Your task to perform on an android device: Open eBay Image 0: 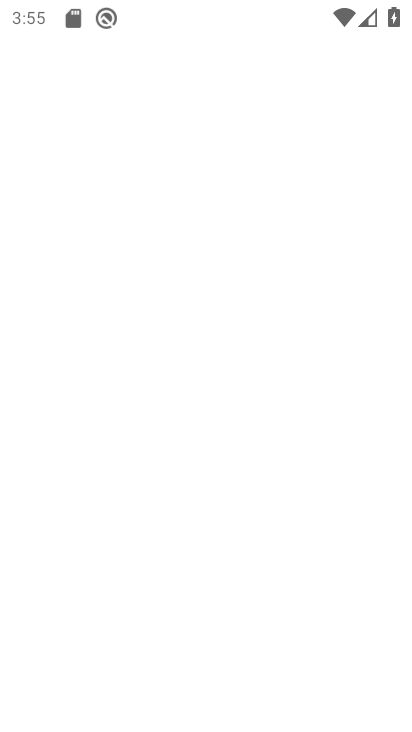
Step 0: drag from (244, 658) to (201, 117)
Your task to perform on an android device: Open eBay Image 1: 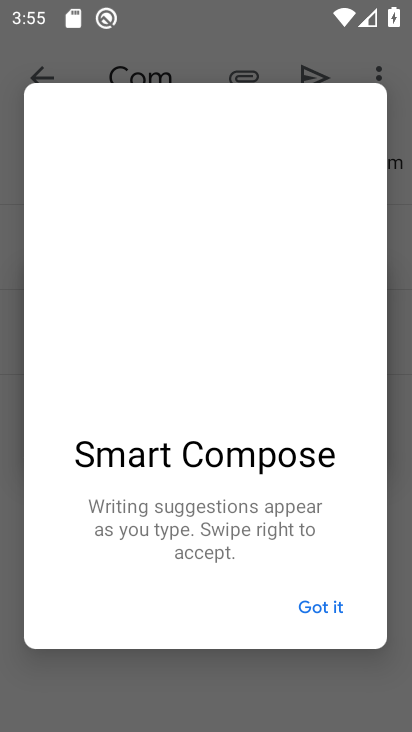
Step 1: click (318, 608)
Your task to perform on an android device: Open eBay Image 2: 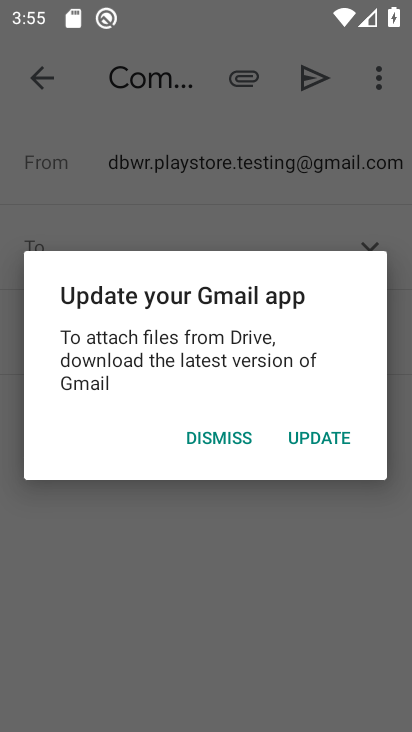
Step 2: click (231, 438)
Your task to perform on an android device: Open eBay Image 3: 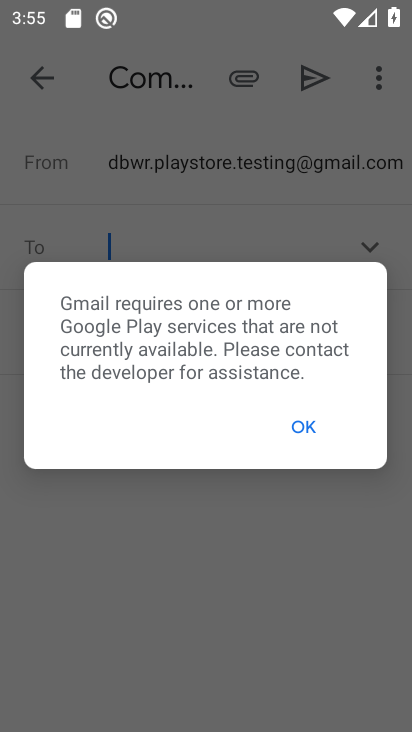
Step 3: click (302, 417)
Your task to perform on an android device: Open eBay Image 4: 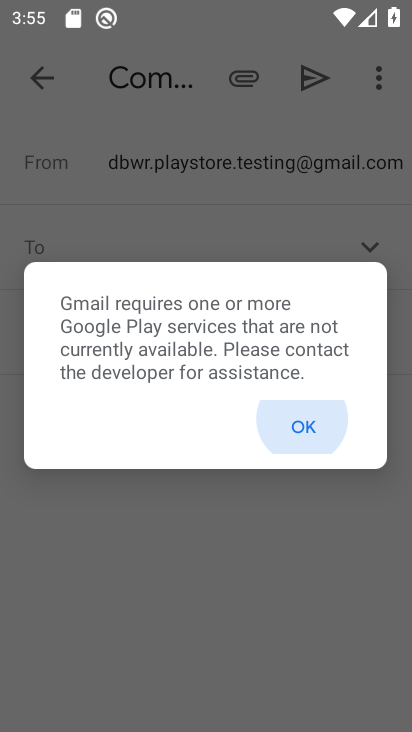
Step 4: click (302, 417)
Your task to perform on an android device: Open eBay Image 5: 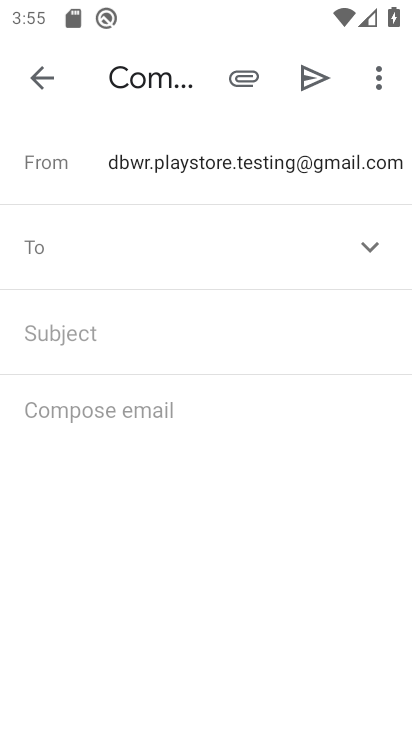
Step 5: click (309, 419)
Your task to perform on an android device: Open eBay Image 6: 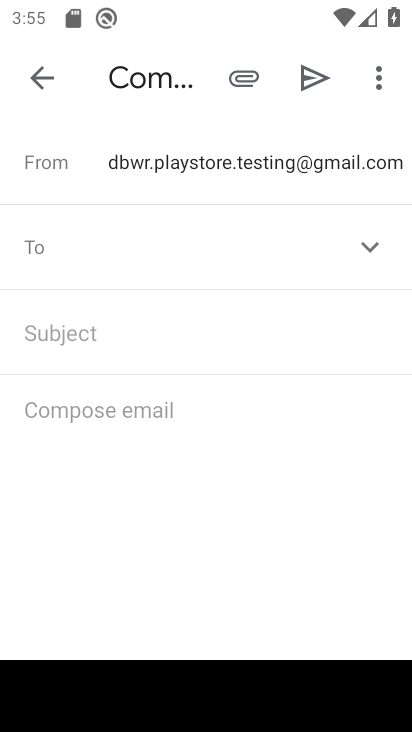
Step 6: click (44, 83)
Your task to perform on an android device: Open eBay Image 7: 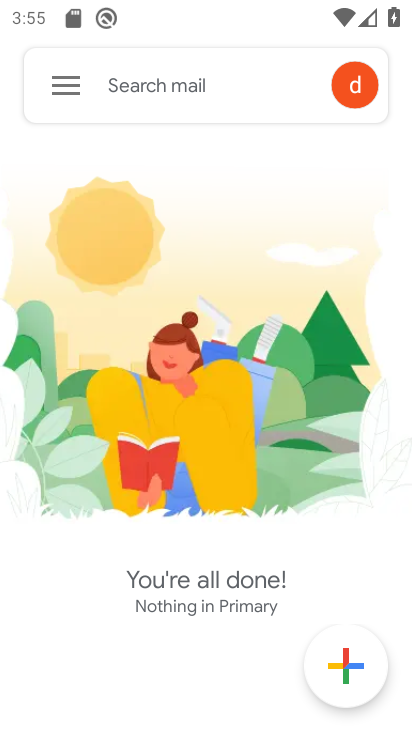
Step 7: press back button
Your task to perform on an android device: Open eBay Image 8: 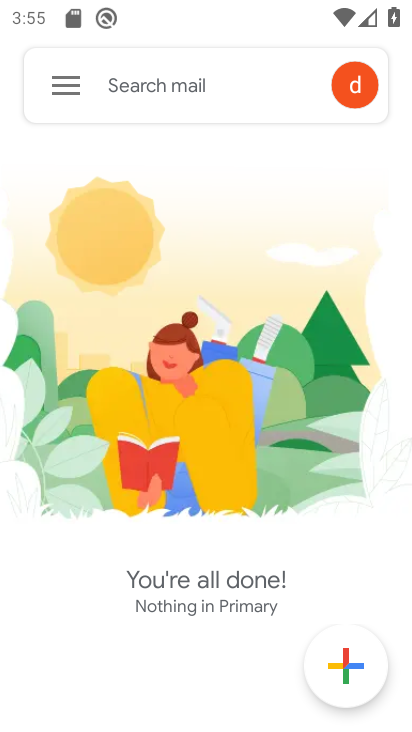
Step 8: press back button
Your task to perform on an android device: Open eBay Image 9: 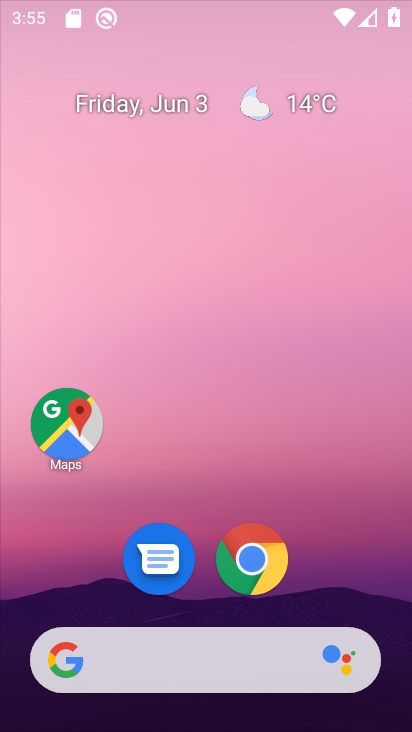
Step 9: press back button
Your task to perform on an android device: Open eBay Image 10: 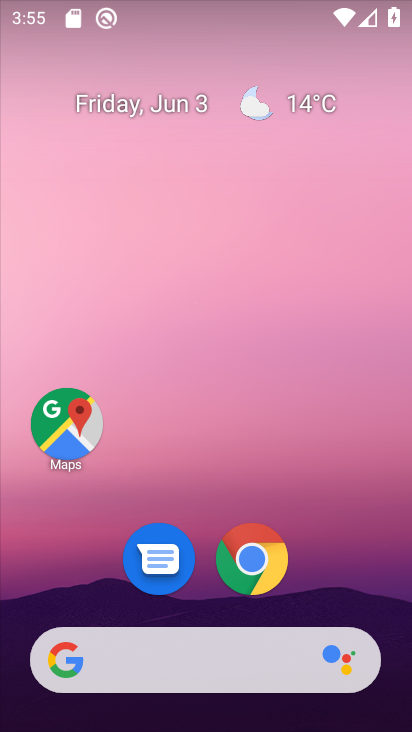
Step 10: drag from (214, 652) to (190, 5)
Your task to perform on an android device: Open eBay Image 11: 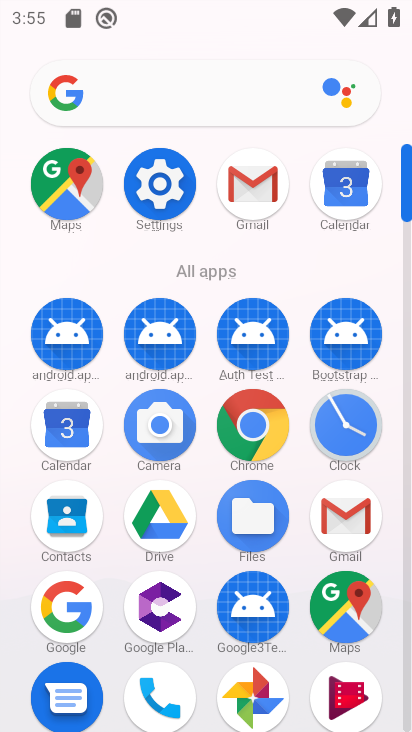
Step 11: click (252, 424)
Your task to perform on an android device: Open eBay Image 12: 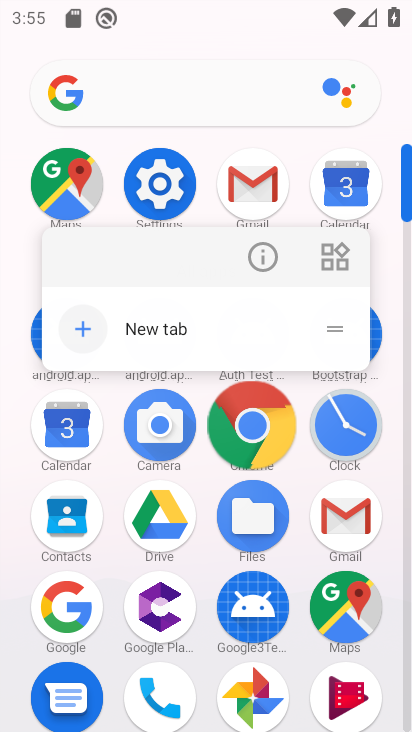
Step 12: click (252, 423)
Your task to perform on an android device: Open eBay Image 13: 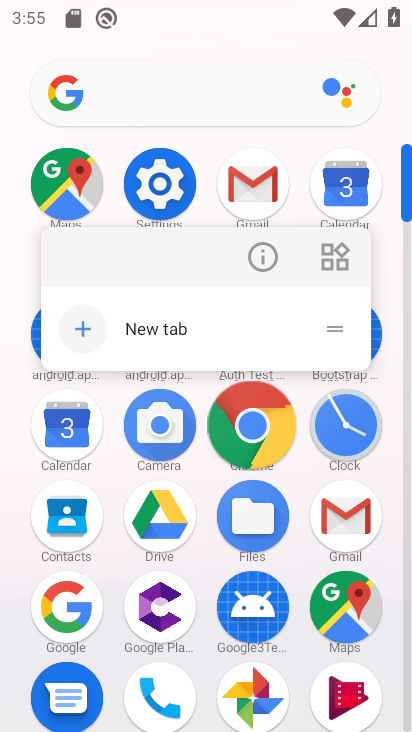
Step 13: click (253, 422)
Your task to perform on an android device: Open eBay Image 14: 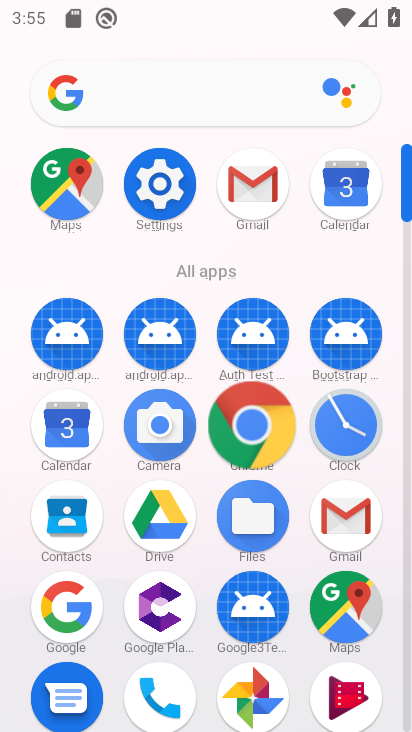
Step 14: click (261, 415)
Your task to perform on an android device: Open eBay Image 15: 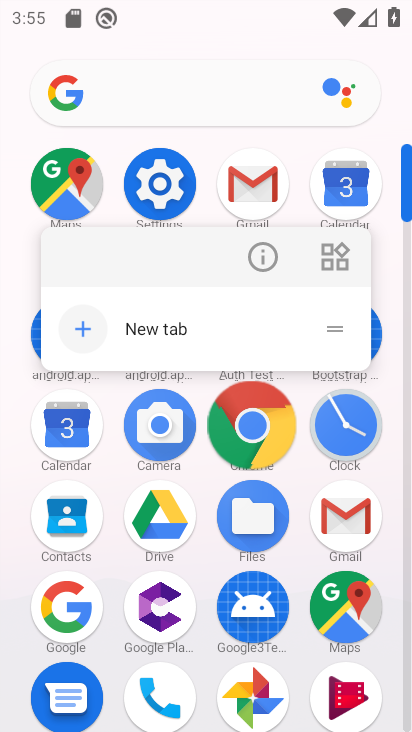
Step 15: click (262, 413)
Your task to perform on an android device: Open eBay Image 16: 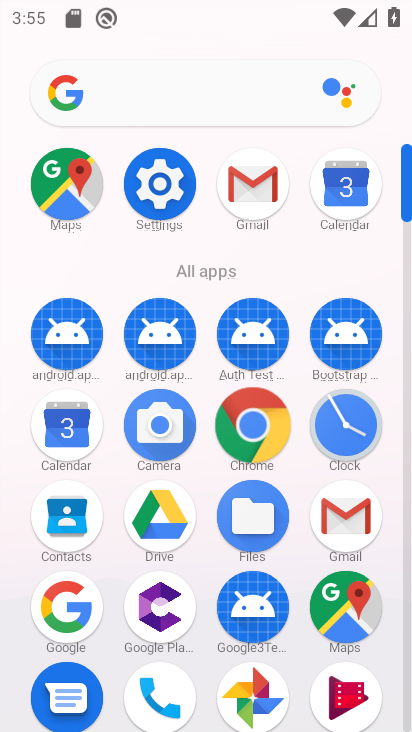
Step 16: click (253, 413)
Your task to perform on an android device: Open eBay Image 17: 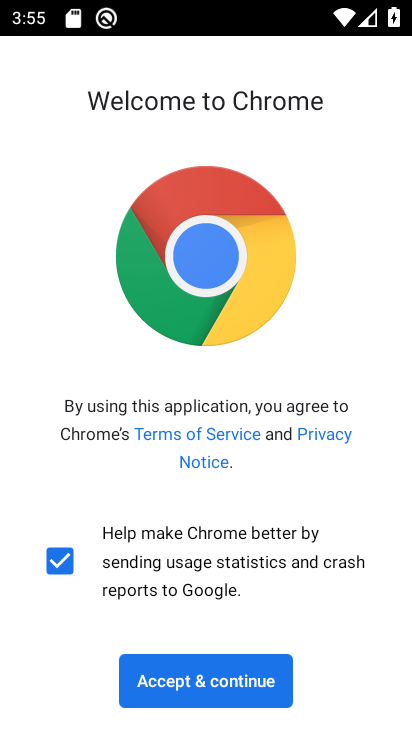
Step 17: click (198, 673)
Your task to perform on an android device: Open eBay Image 18: 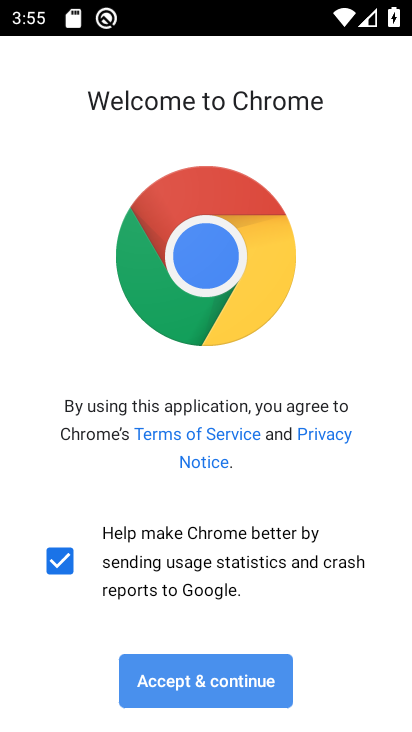
Step 18: click (197, 672)
Your task to perform on an android device: Open eBay Image 19: 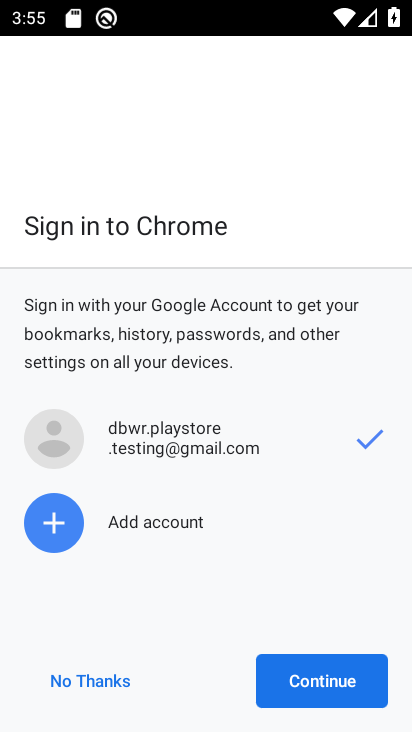
Step 19: click (198, 669)
Your task to perform on an android device: Open eBay Image 20: 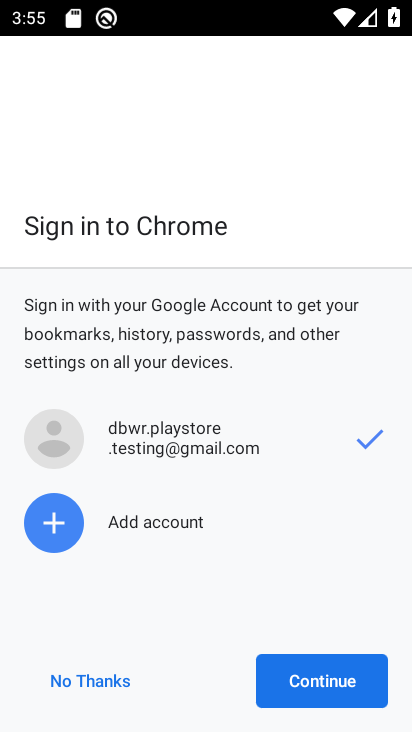
Step 20: click (342, 684)
Your task to perform on an android device: Open eBay Image 21: 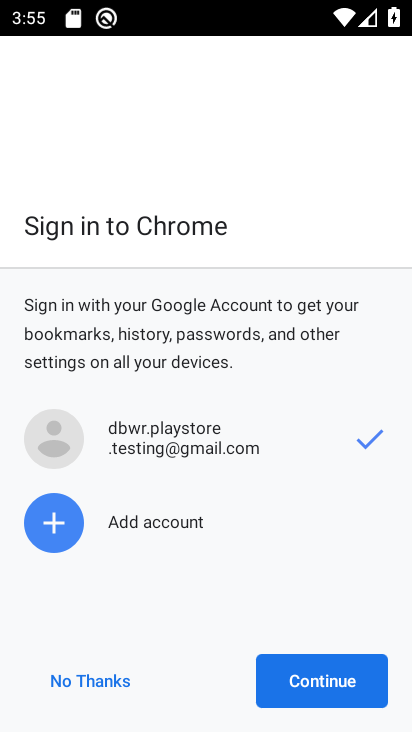
Step 21: click (335, 673)
Your task to perform on an android device: Open eBay Image 22: 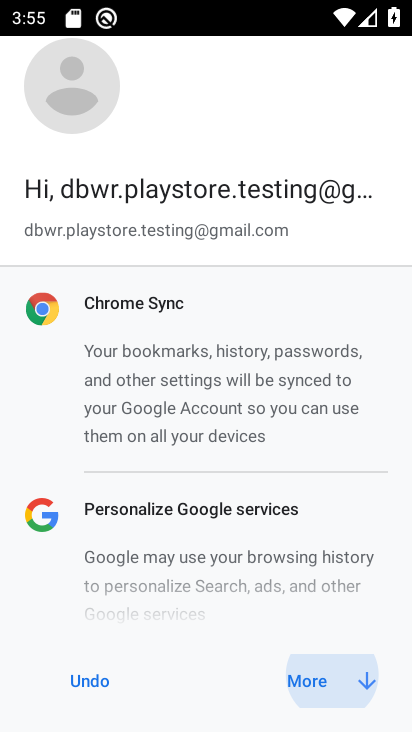
Step 22: click (338, 676)
Your task to perform on an android device: Open eBay Image 23: 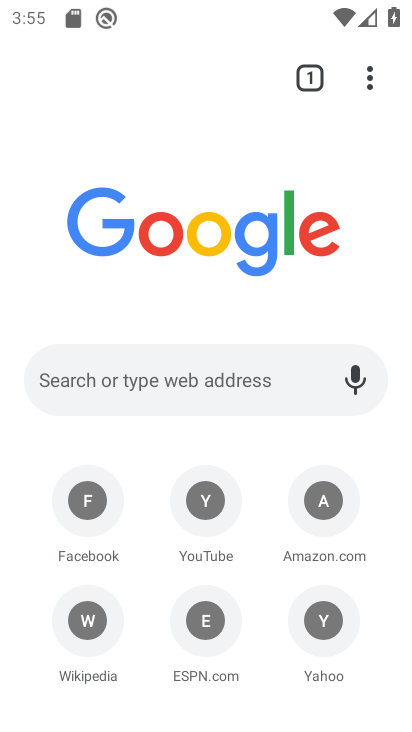
Step 23: click (64, 61)
Your task to perform on an android device: Open eBay Image 24: 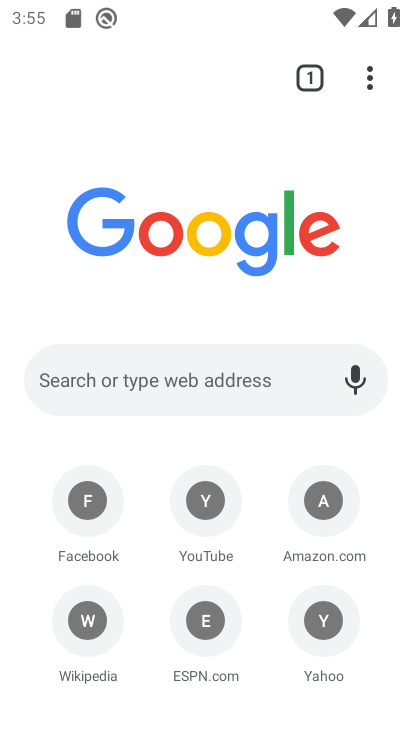
Step 24: click (65, 62)
Your task to perform on an android device: Open eBay Image 25: 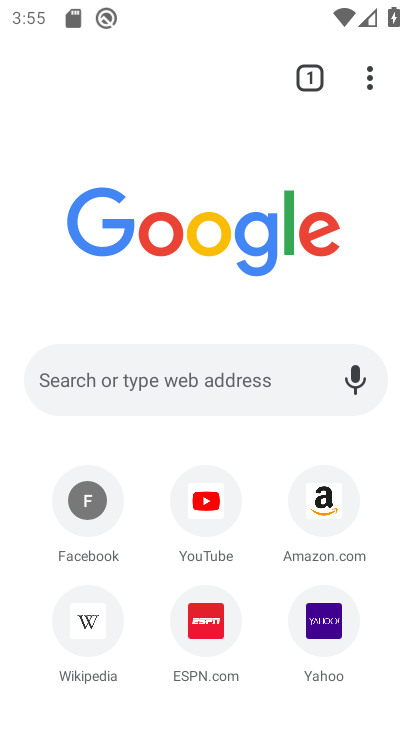
Step 25: click (71, 377)
Your task to perform on an android device: Open eBay Image 26: 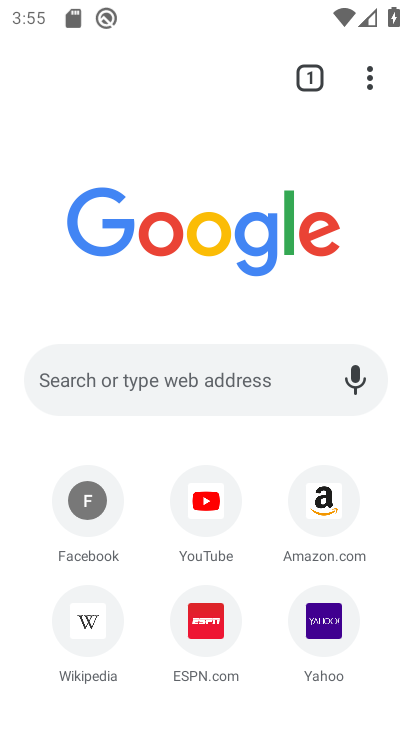
Step 26: click (71, 377)
Your task to perform on an android device: Open eBay Image 27: 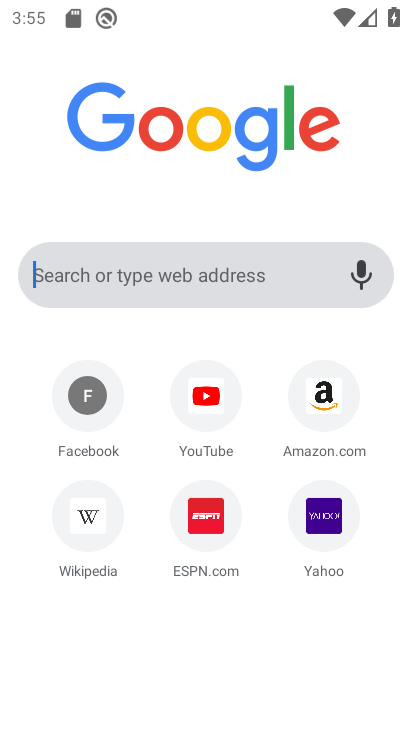
Step 27: click (71, 376)
Your task to perform on an android device: Open eBay Image 28: 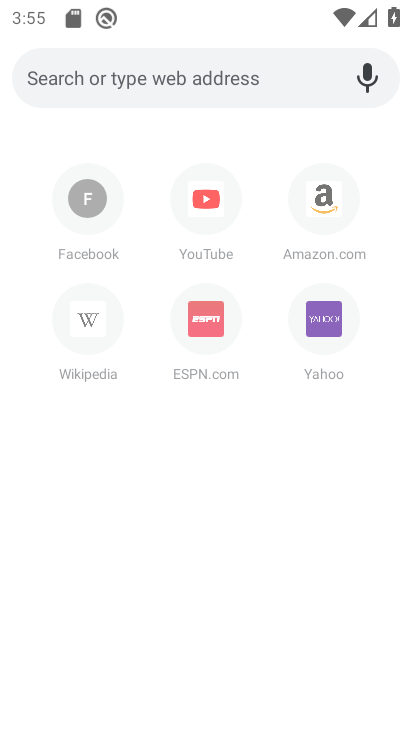
Step 28: click (71, 376)
Your task to perform on an android device: Open eBay Image 29: 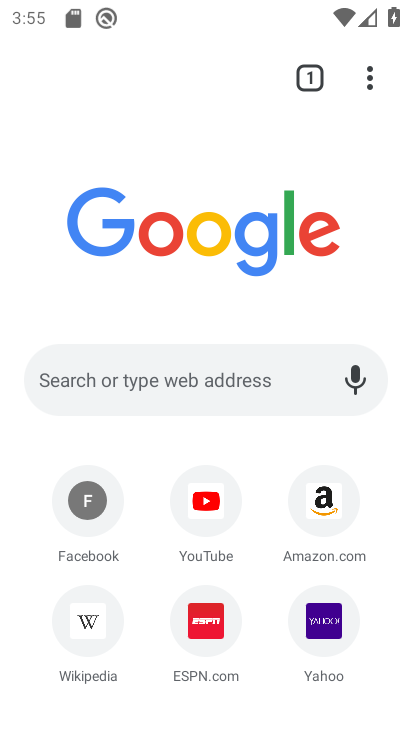
Step 29: click (85, 373)
Your task to perform on an android device: Open eBay Image 30: 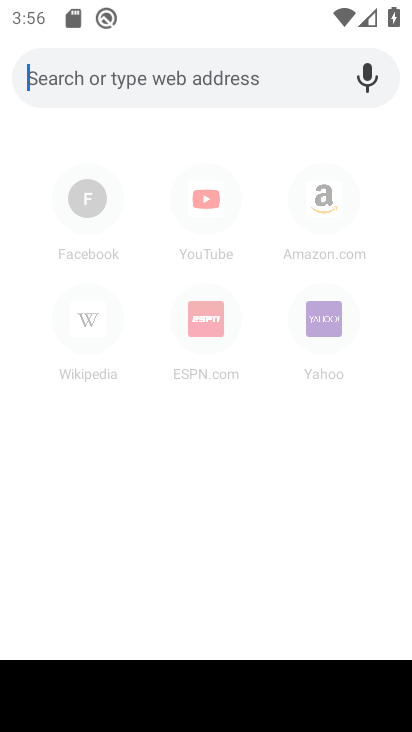
Step 30: type "www.ebay.com"
Your task to perform on an android device: Open eBay Image 31: 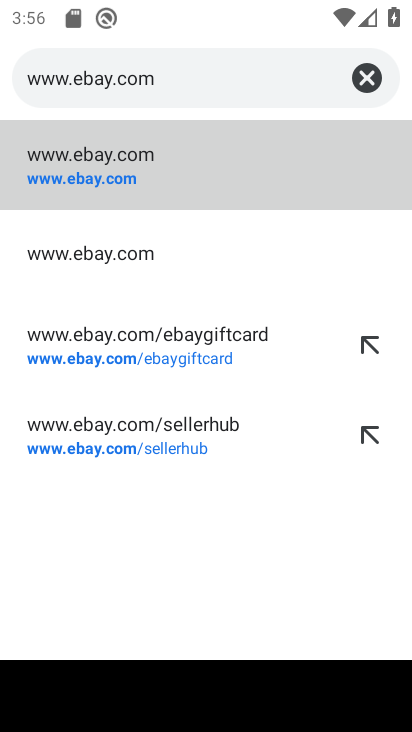
Step 31: click (111, 167)
Your task to perform on an android device: Open eBay Image 32: 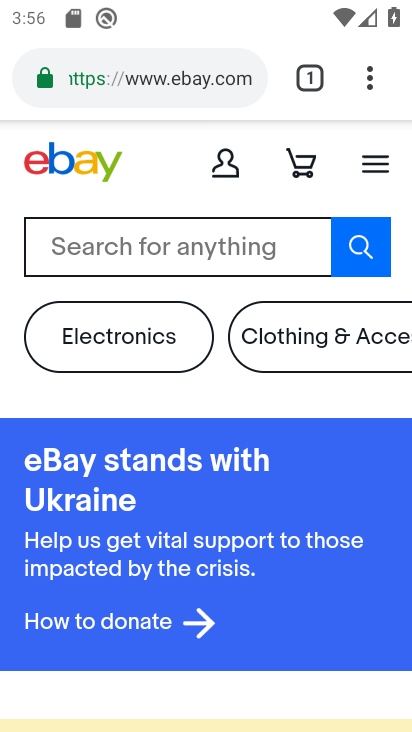
Step 32: task complete